Your task to perform on an android device: toggle pop-ups in chrome Image 0: 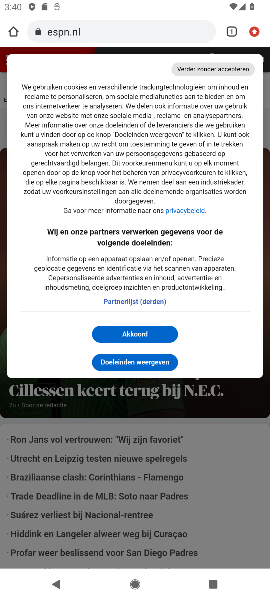
Step 0: press home button
Your task to perform on an android device: toggle pop-ups in chrome Image 1: 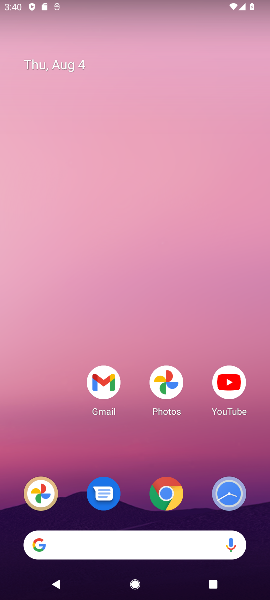
Step 1: click (169, 495)
Your task to perform on an android device: toggle pop-ups in chrome Image 2: 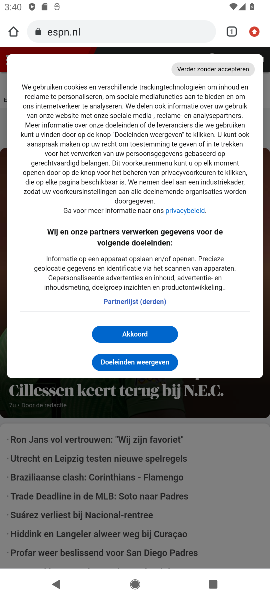
Step 2: click (255, 26)
Your task to perform on an android device: toggle pop-ups in chrome Image 3: 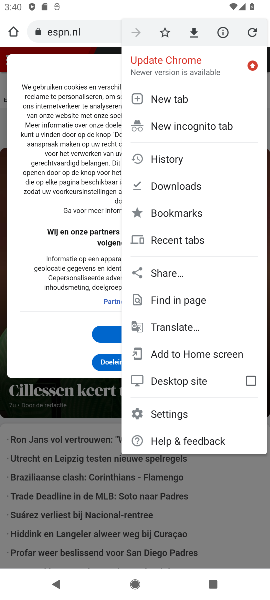
Step 3: click (176, 405)
Your task to perform on an android device: toggle pop-ups in chrome Image 4: 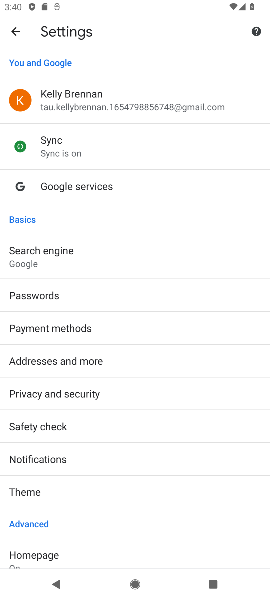
Step 4: drag from (43, 512) to (71, 448)
Your task to perform on an android device: toggle pop-ups in chrome Image 5: 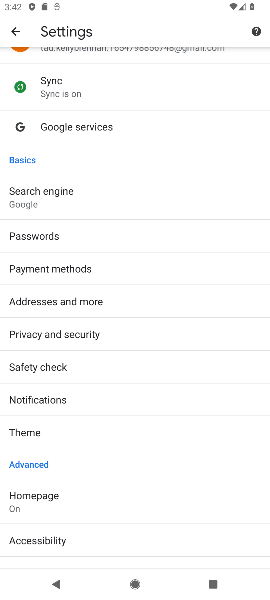
Step 5: drag from (69, 528) to (141, 228)
Your task to perform on an android device: toggle pop-ups in chrome Image 6: 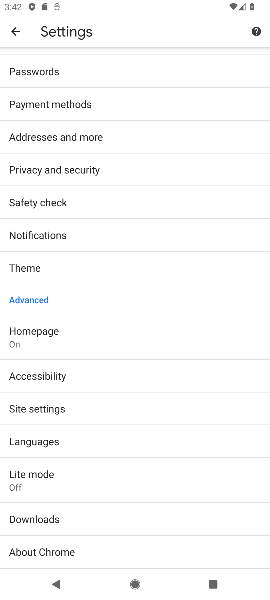
Step 6: click (57, 415)
Your task to perform on an android device: toggle pop-ups in chrome Image 7: 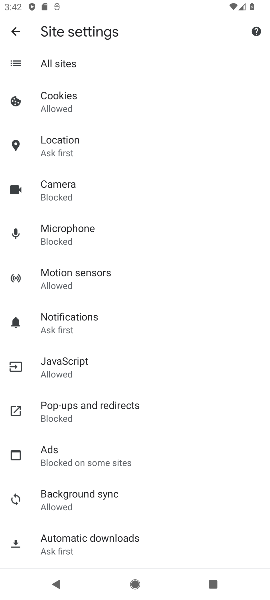
Step 7: click (98, 411)
Your task to perform on an android device: toggle pop-ups in chrome Image 8: 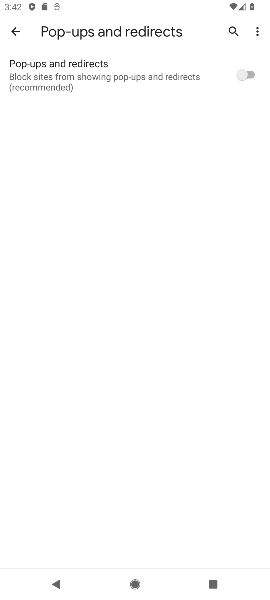
Step 8: click (250, 73)
Your task to perform on an android device: toggle pop-ups in chrome Image 9: 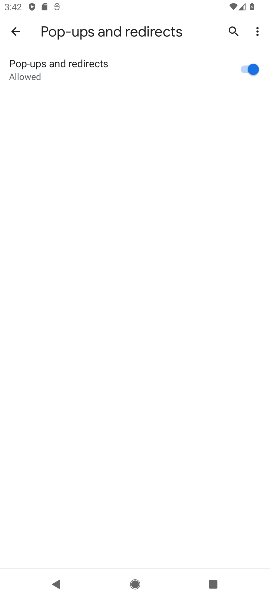
Step 9: task complete